Your task to perform on an android device: Go to CNN.com Image 0: 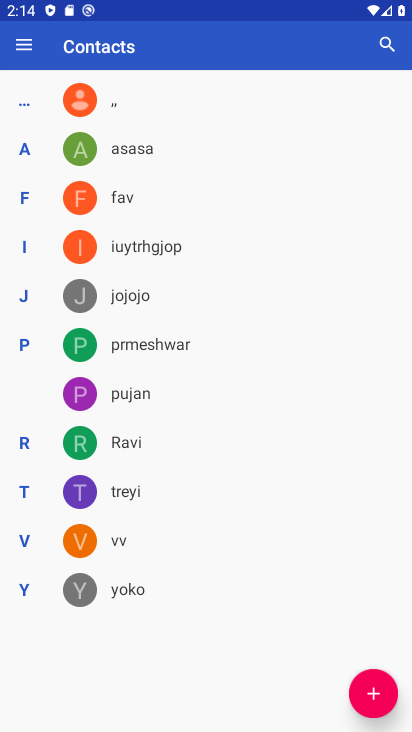
Step 0: press back button
Your task to perform on an android device: Go to CNN.com Image 1: 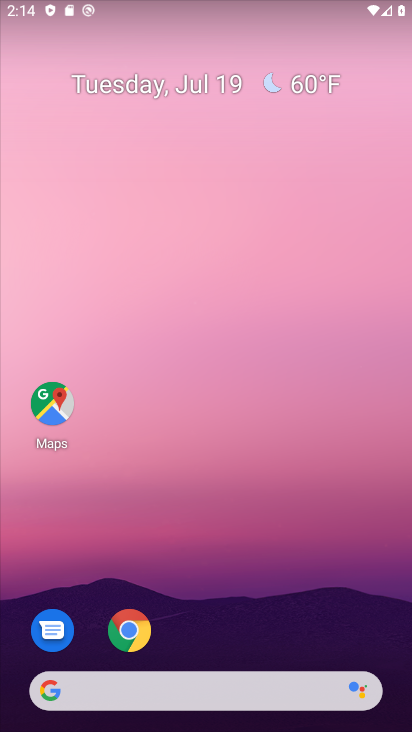
Step 1: drag from (237, 515) to (107, 94)
Your task to perform on an android device: Go to CNN.com Image 2: 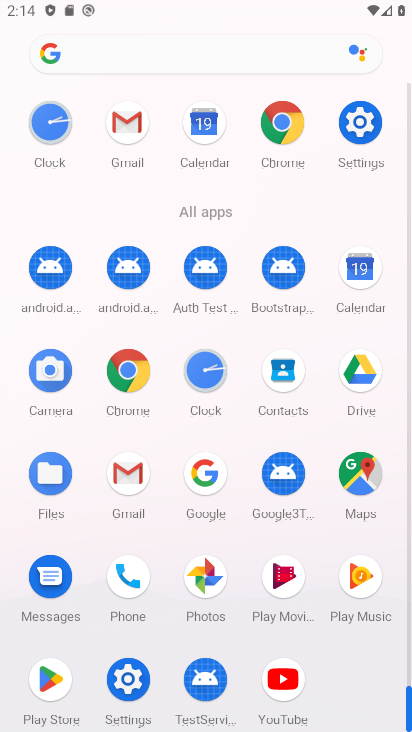
Step 2: drag from (183, 615) to (47, 24)
Your task to perform on an android device: Go to CNN.com Image 3: 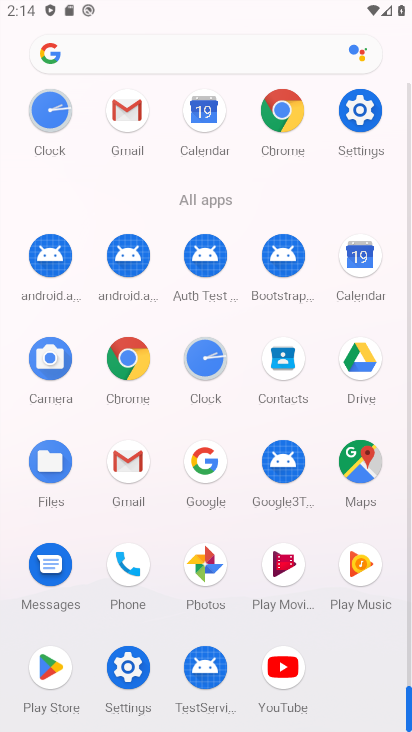
Step 3: click (279, 107)
Your task to perform on an android device: Go to CNN.com Image 4: 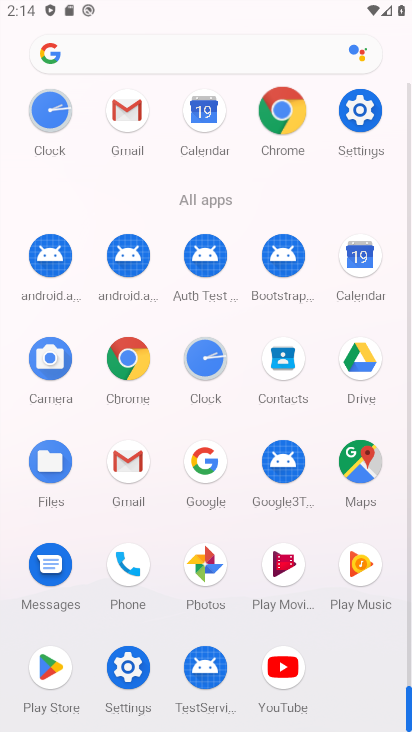
Step 4: click (280, 107)
Your task to perform on an android device: Go to CNN.com Image 5: 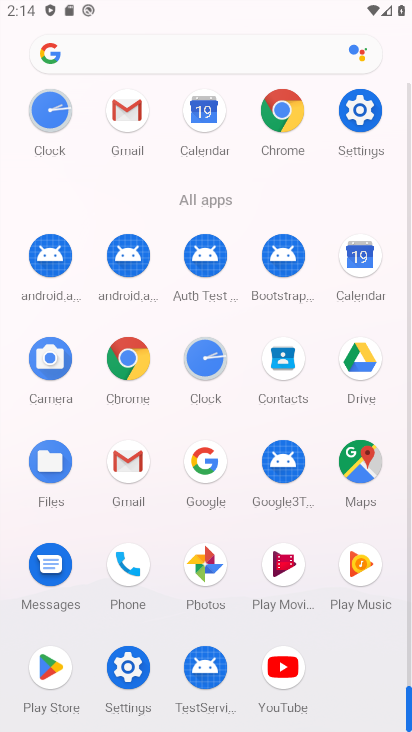
Step 5: click (283, 128)
Your task to perform on an android device: Go to CNN.com Image 6: 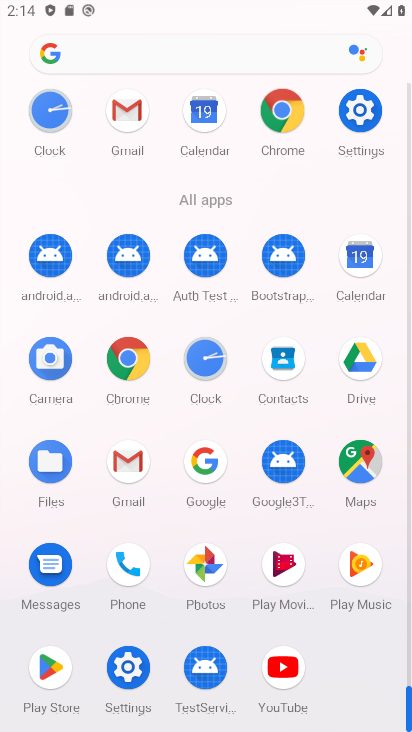
Step 6: click (282, 129)
Your task to perform on an android device: Go to CNN.com Image 7: 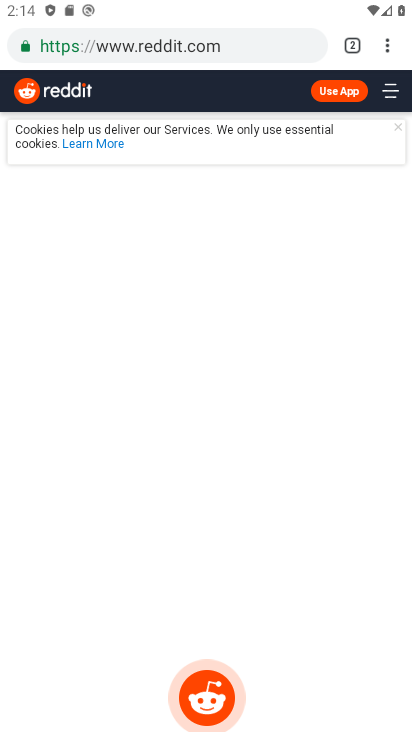
Step 7: drag from (387, 45) to (220, 85)
Your task to perform on an android device: Go to CNN.com Image 8: 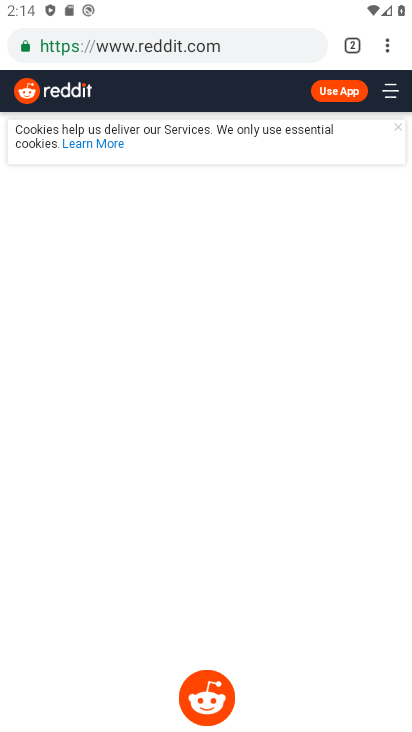
Step 8: click (219, 86)
Your task to perform on an android device: Go to CNN.com Image 9: 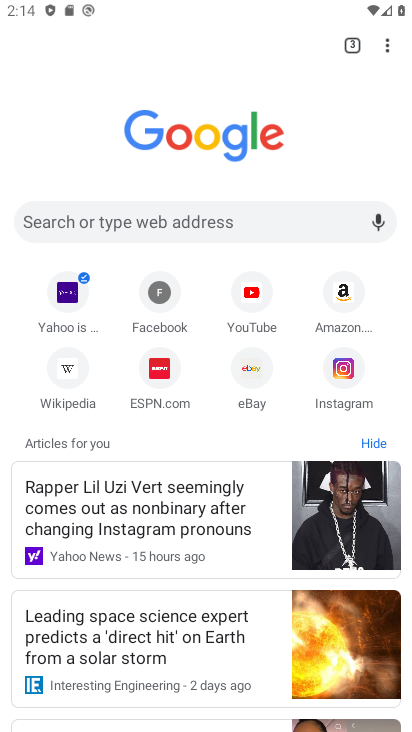
Step 9: click (82, 220)
Your task to perform on an android device: Go to CNN.com Image 10: 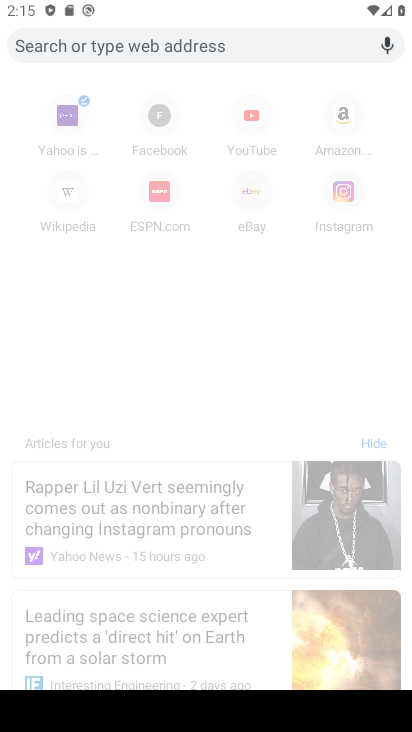
Step 10: type "CNN.com"
Your task to perform on an android device: Go to CNN.com Image 11: 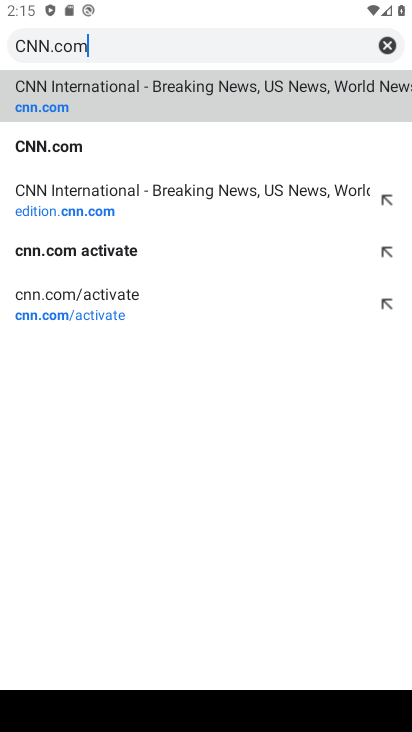
Step 11: click (108, 94)
Your task to perform on an android device: Go to CNN.com Image 12: 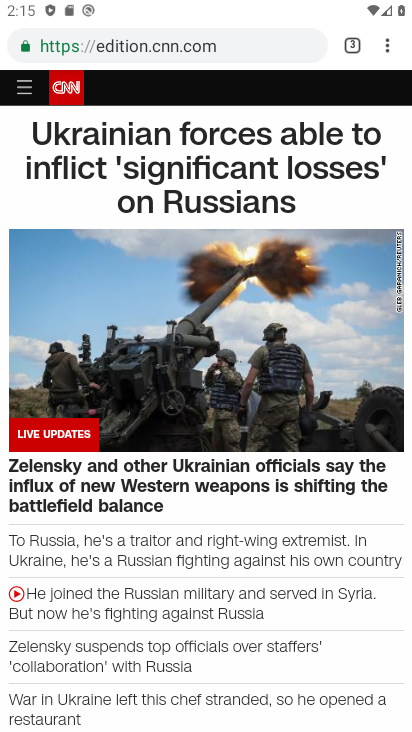
Step 12: task complete